Your task to perform on an android device: read, delete, or share a saved page in the chrome app Image 0: 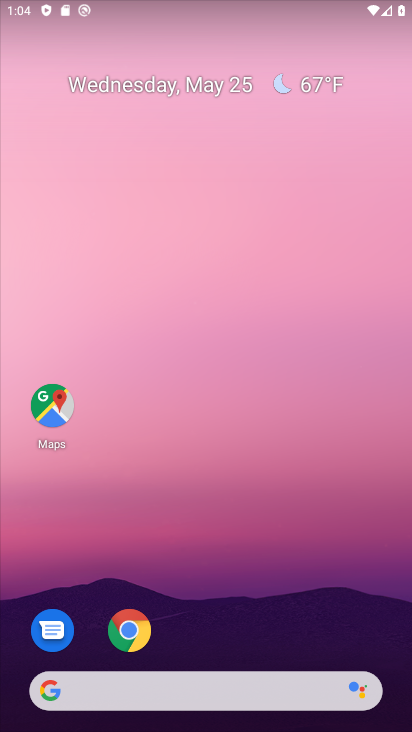
Step 0: press home button
Your task to perform on an android device: read, delete, or share a saved page in the chrome app Image 1: 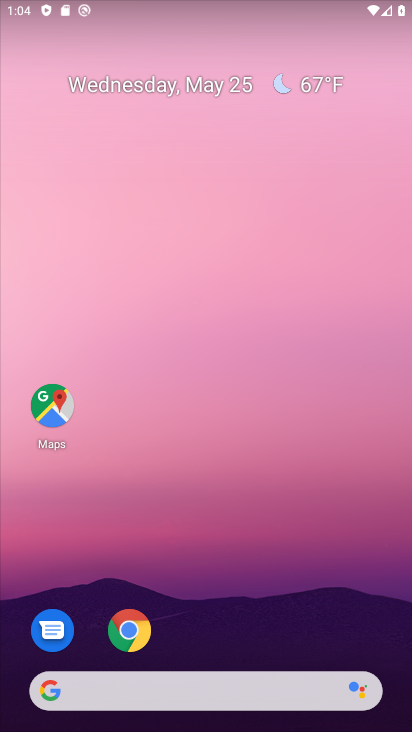
Step 1: click (119, 628)
Your task to perform on an android device: read, delete, or share a saved page in the chrome app Image 2: 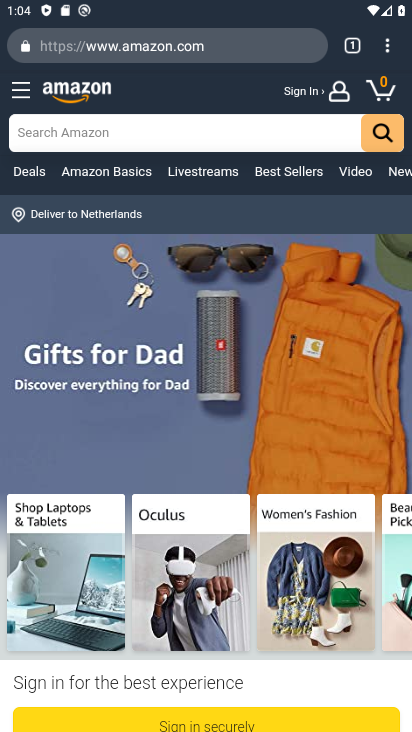
Step 2: click (387, 39)
Your task to perform on an android device: read, delete, or share a saved page in the chrome app Image 3: 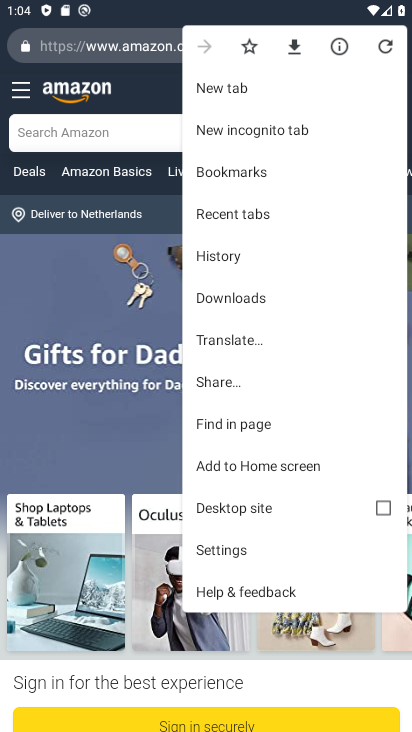
Step 3: click (262, 296)
Your task to perform on an android device: read, delete, or share a saved page in the chrome app Image 4: 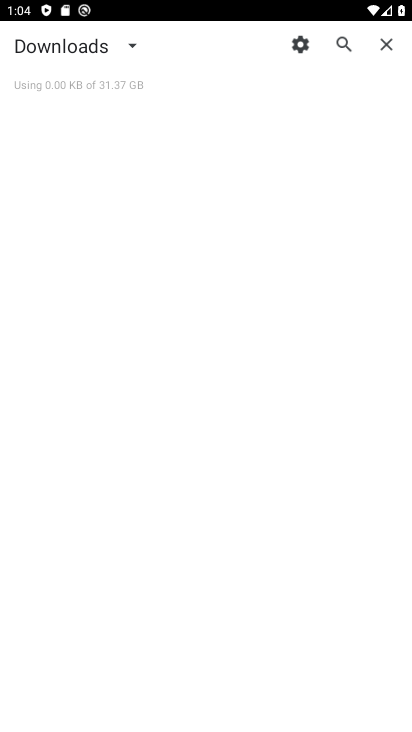
Step 4: task complete